Your task to perform on an android device: When is my next appointment? Image 0: 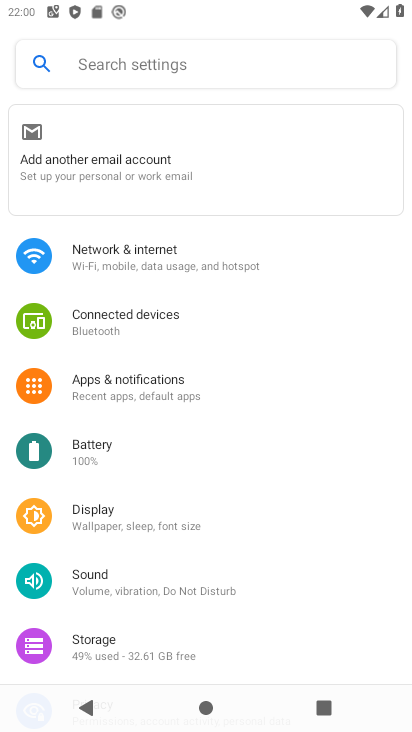
Step 0: press home button
Your task to perform on an android device: When is my next appointment? Image 1: 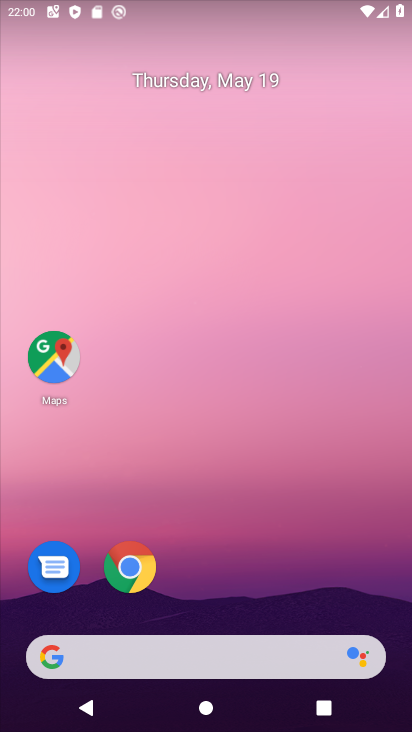
Step 1: drag from (235, 601) to (277, 23)
Your task to perform on an android device: When is my next appointment? Image 2: 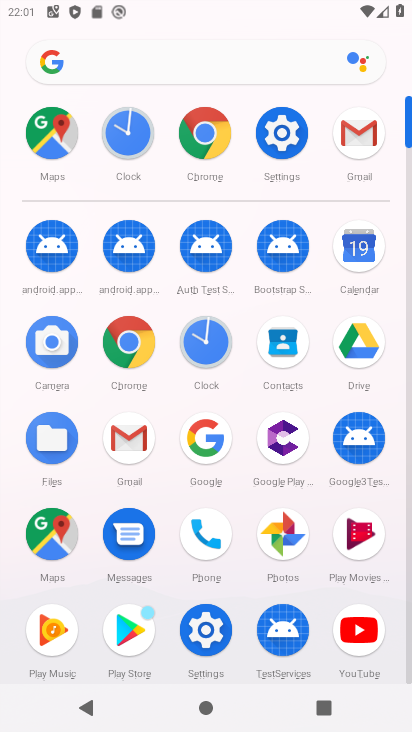
Step 2: click (365, 256)
Your task to perform on an android device: When is my next appointment? Image 3: 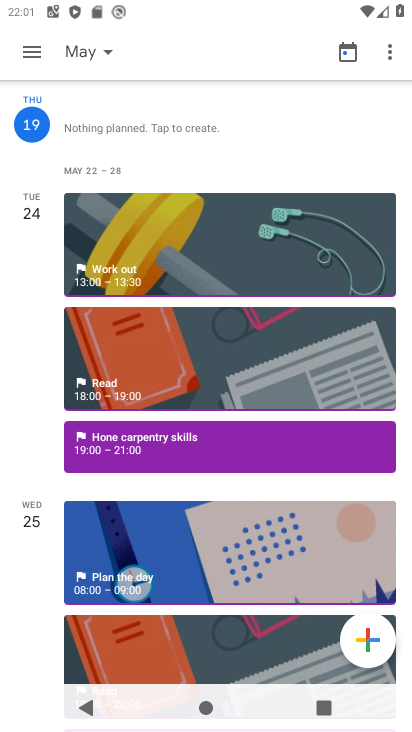
Step 3: task complete